Your task to perform on an android device: clear history in the chrome app Image 0: 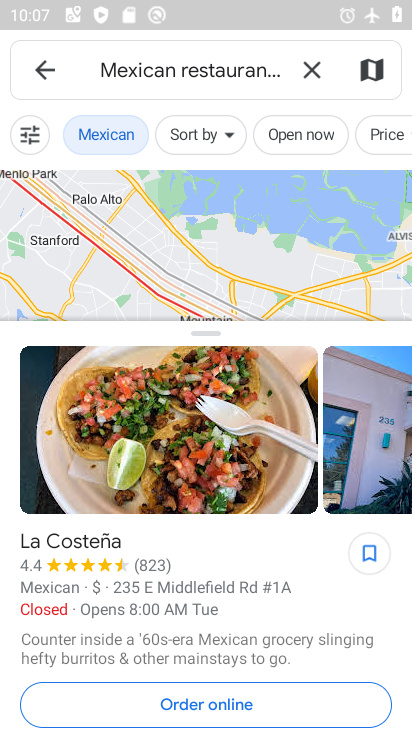
Step 0: press home button
Your task to perform on an android device: clear history in the chrome app Image 1: 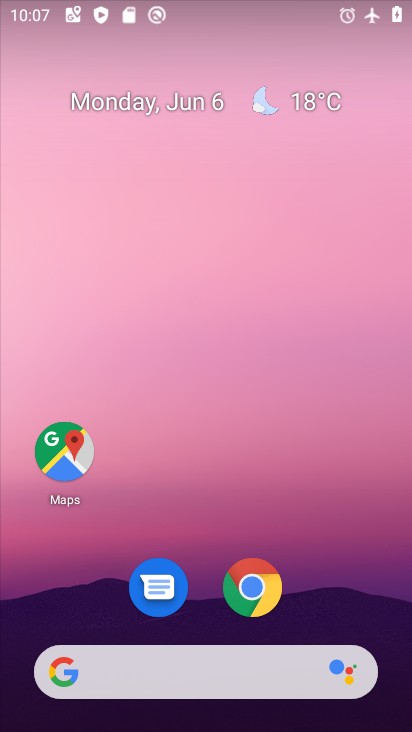
Step 1: drag from (326, 595) to (303, 125)
Your task to perform on an android device: clear history in the chrome app Image 2: 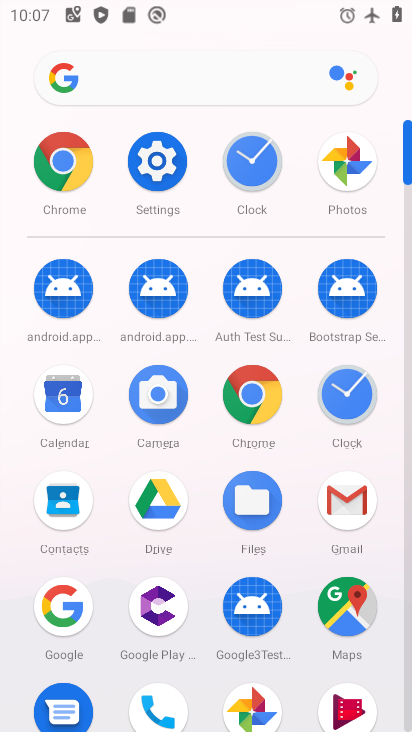
Step 2: click (252, 391)
Your task to perform on an android device: clear history in the chrome app Image 3: 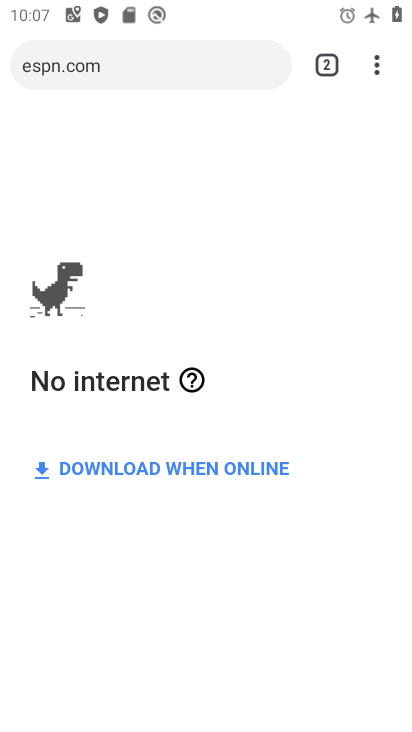
Step 3: click (376, 53)
Your task to perform on an android device: clear history in the chrome app Image 4: 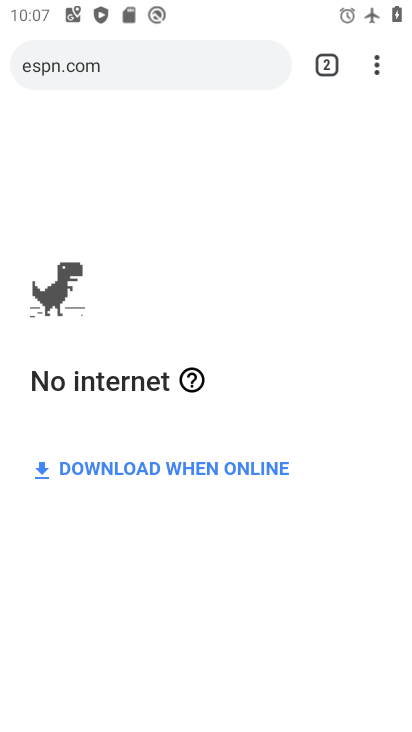
Step 4: drag from (386, 54) to (168, 367)
Your task to perform on an android device: clear history in the chrome app Image 5: 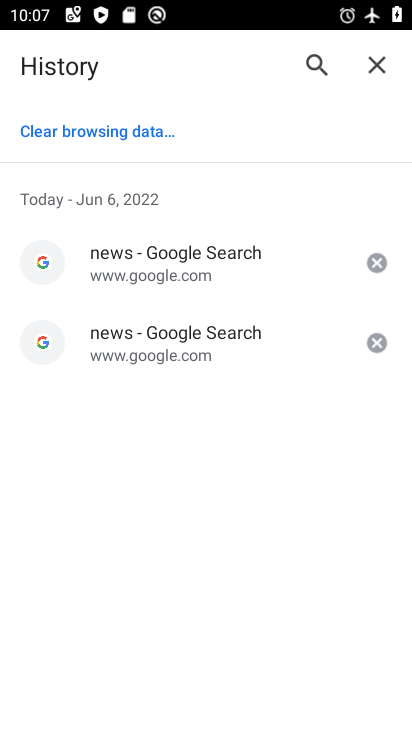
Step 5: click (126, 134)
Your task to perform on an android device: clear history in the chrome app Image 6: 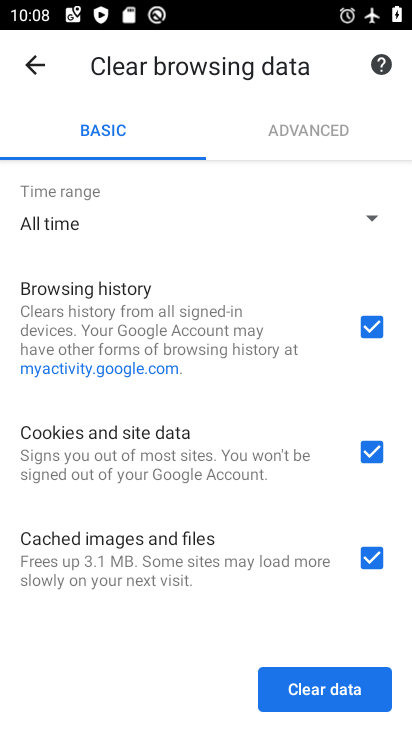
Step 6: click (342, 674)
Your task to perform on an android device: clear history in the chrome app Image 7: 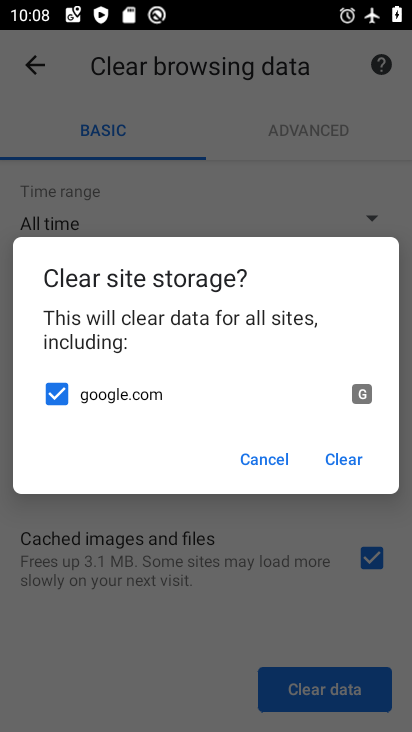
Step 7: click (337, 462)
Your task to perform on an android device: clear history in the chrome app Image 8: 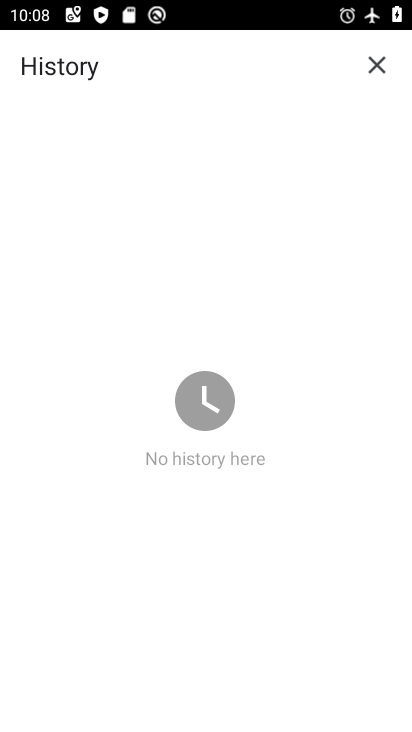
Step 8: task complete